Your task to perform on an android device: open wifi settings Image 0: 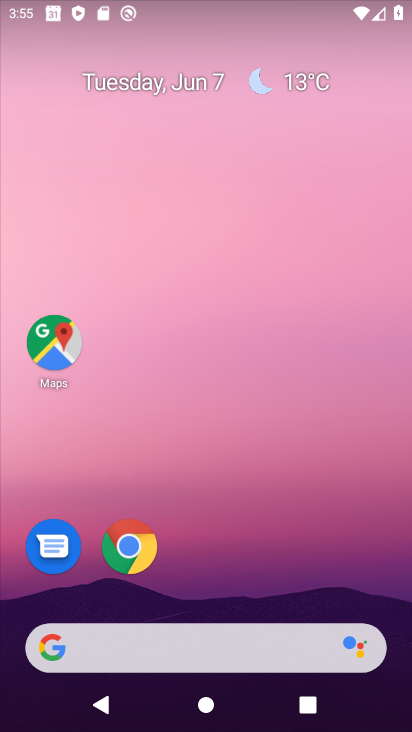
Step 0: drag from (178, 23) to (183, 555)
Your task to perform on an android device: open wifi settings Image 1: 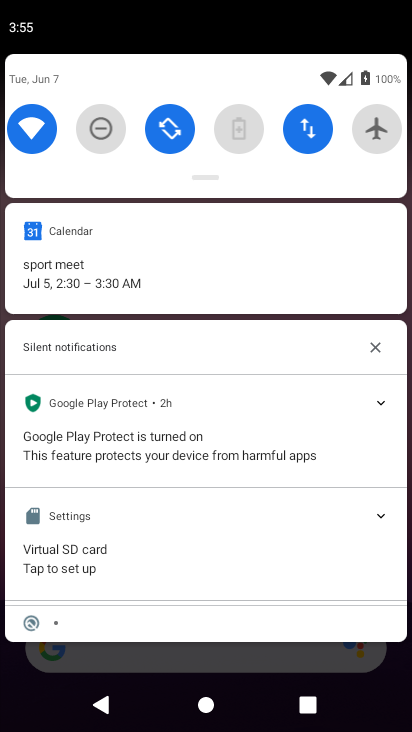
Step 1: click (34, 121)
Your task to perform on an android device: open wifi settings Image 2: 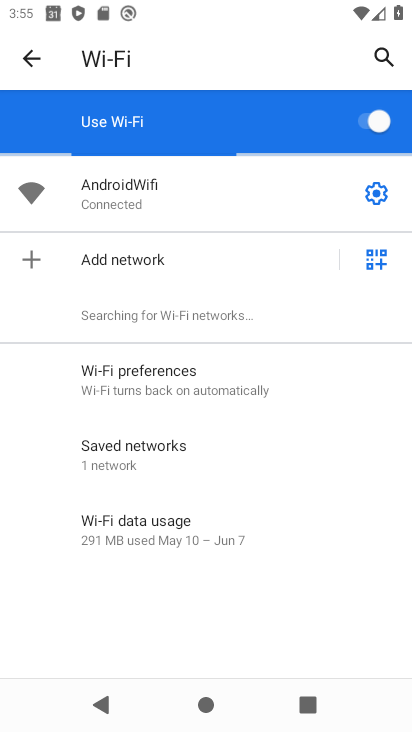
Step 2: task complete